Your task to perform on an android device: remove spam from my inbox in the gmail app Image 0: 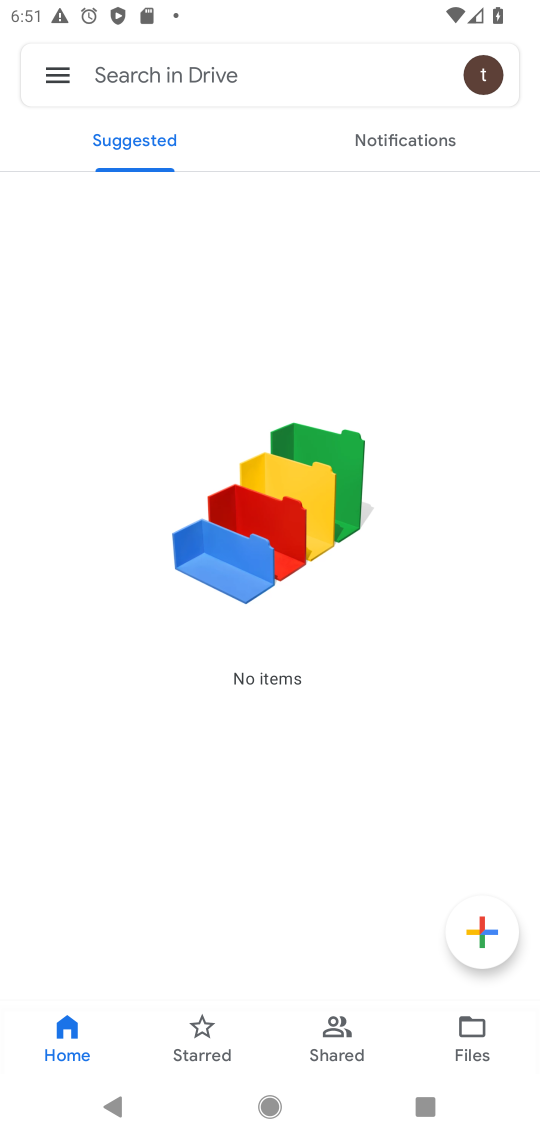
Step 0: press home button
Your task to perform on an android device: remove spam from my inbox in the gmail app Image 1: 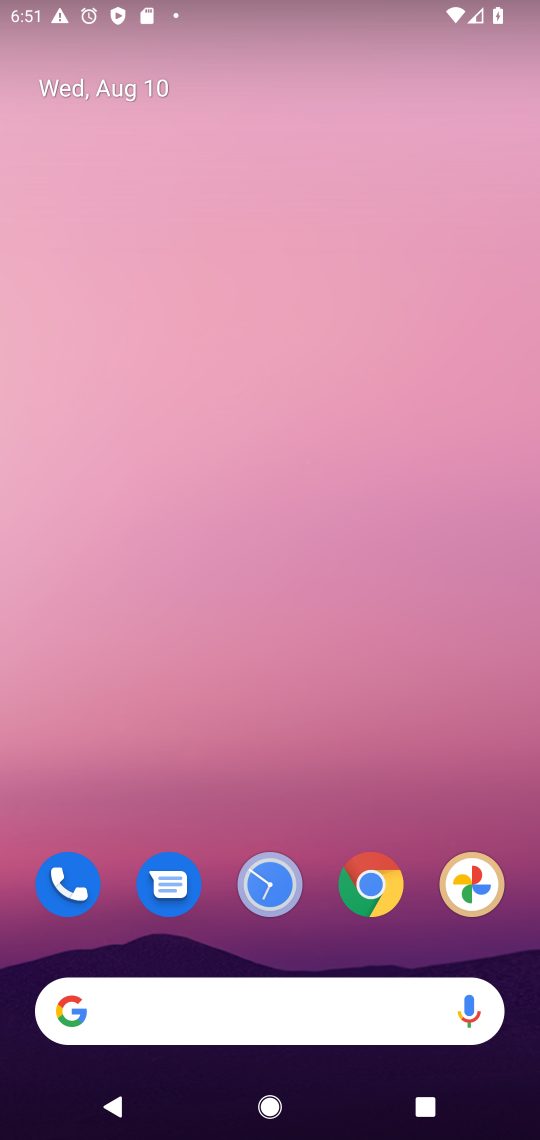
Step 1: drag from (53, 1057) to (476, 325)
Your task to perform on an android device: remove spam from my inbox in the gmail app Image 2: 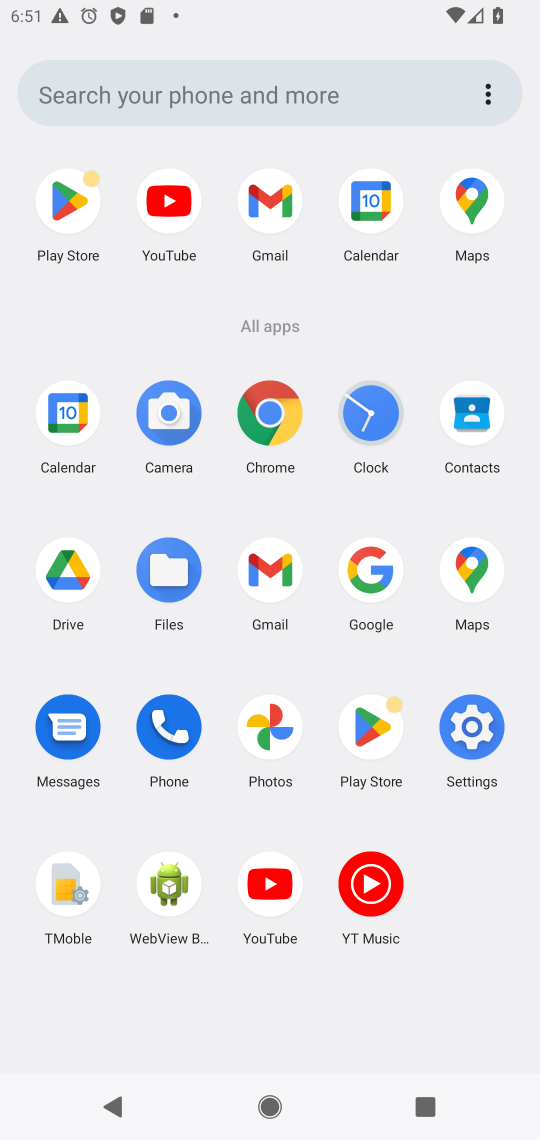
Step 2: click (242, 564)
Your task to perform on an android device: remove spam from my inbox in the gmail app Image 3: 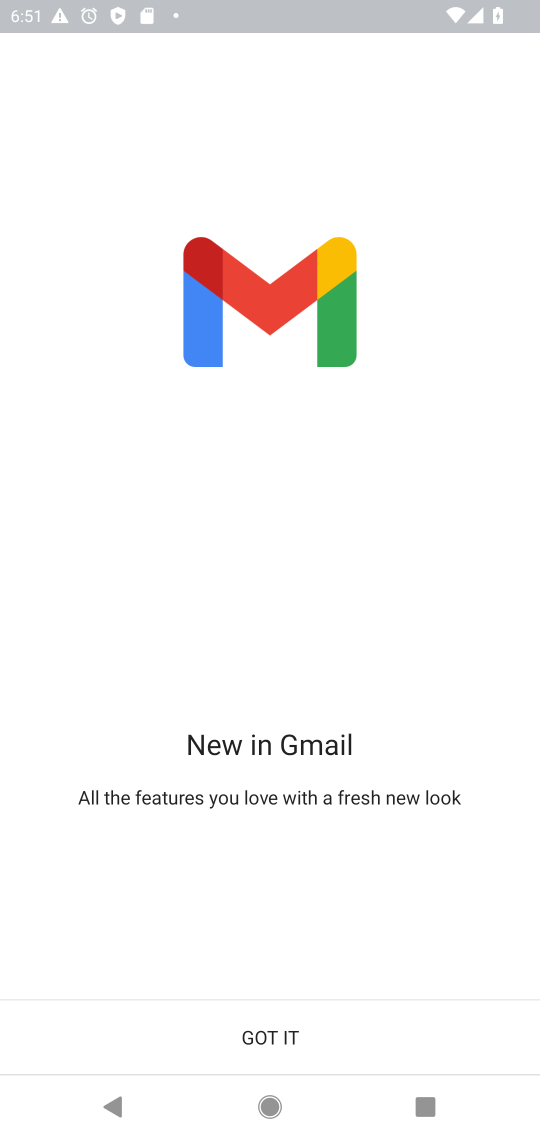
Step 3: click (265, 1027)
Your task to perform on an android device: remove spam from my inbox in the gmail app Image 4: 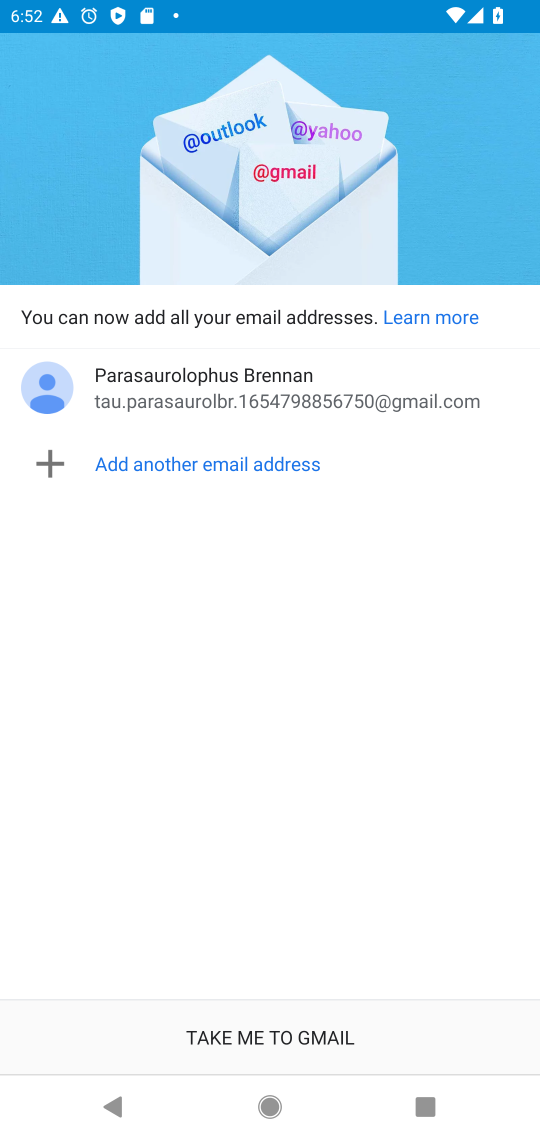
Step 4: click (248, 1033)
Your task to perform on an android device: remove spam from my inbox in the gmail app Image 5: 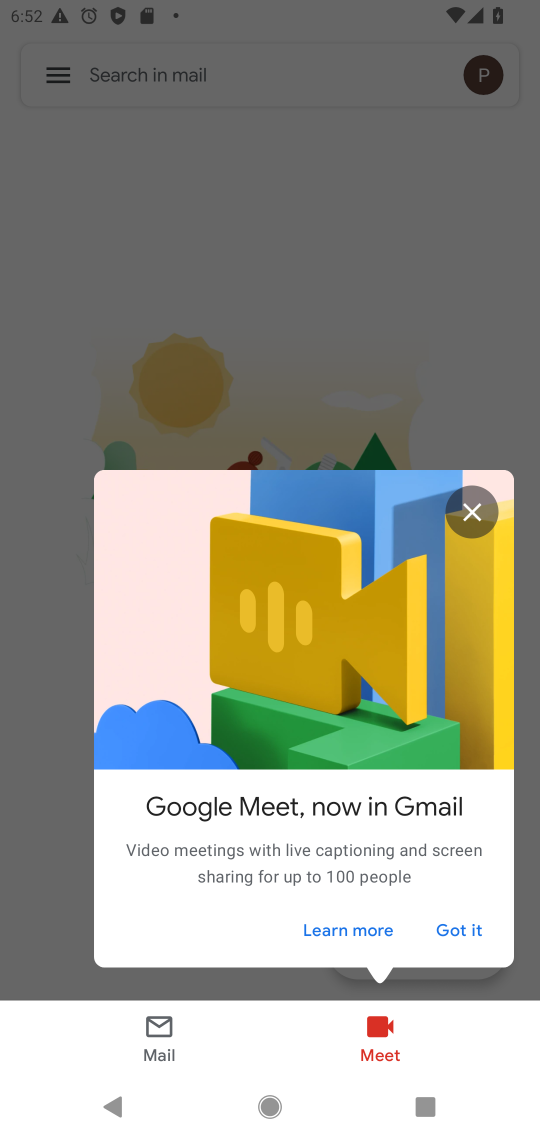
Step 5: click (449, 930)
Your task to perform on an android device: remove spam from my inbox in the gmail app Image 6: 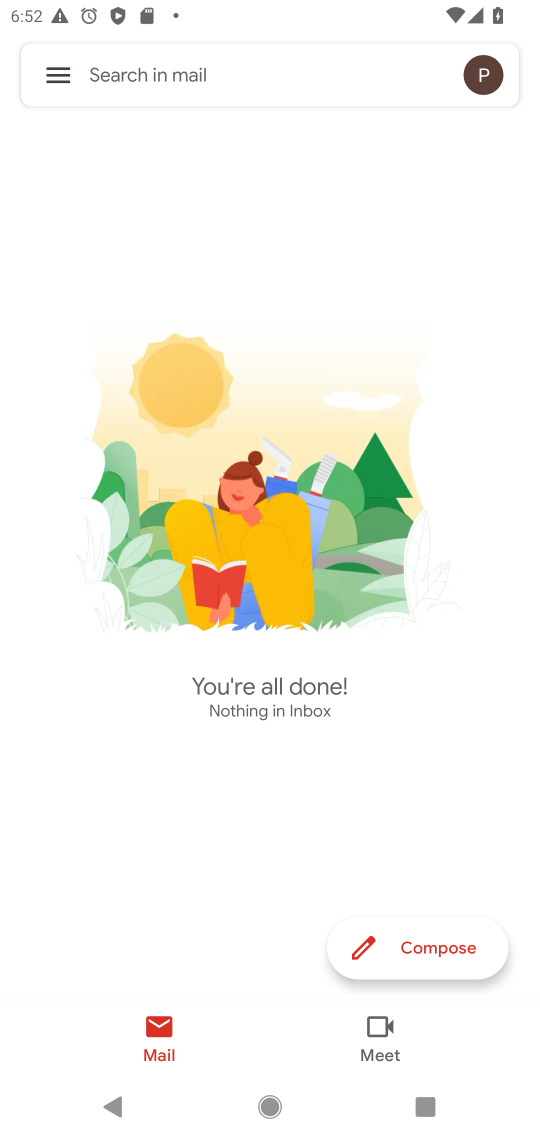
Step 6: click (44, 84)
Your task to perform on an android device: remove spam from my inbox in the gmail app Image 7: 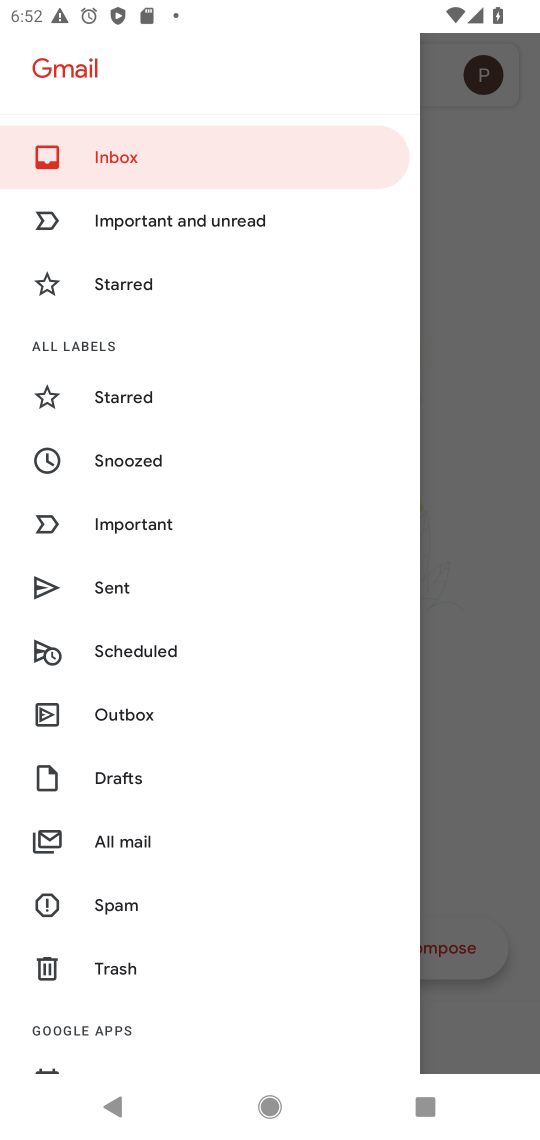
Step 7: click (112, 915)
Your task to perform on an android device: remove spam from my inbox in the gmail app Image 8: 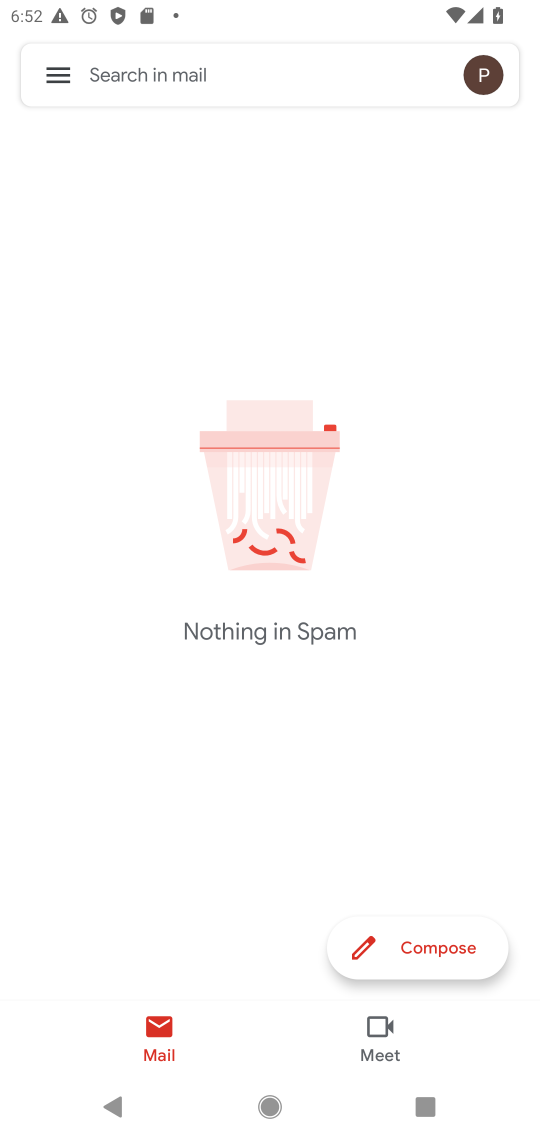
Step 8: task complete